Your task to perform on an android device: Search for seafood restaurants on Google Maps Image 0: 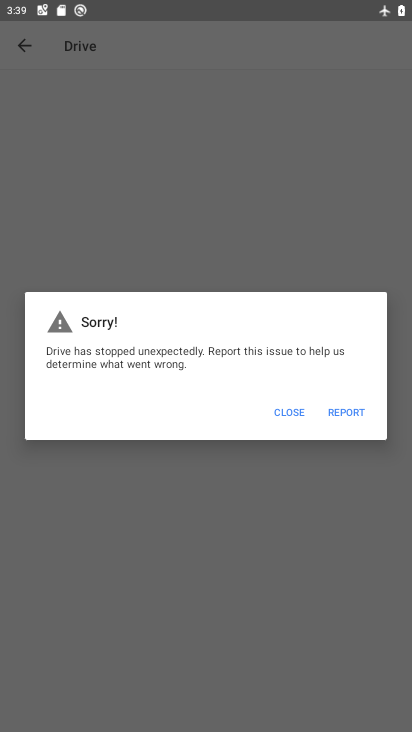
Step 0: press home button
Your task to perform on an android device: Search for seafood restaurants on Google Maps Image 1: 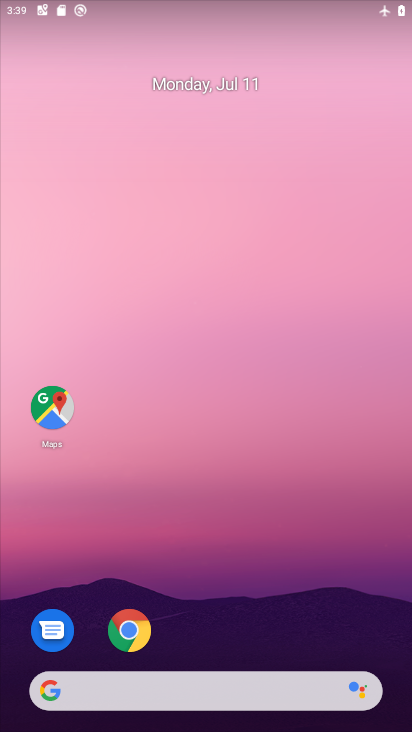
Step 1: click (67, 436)
Your task to perform on an android device: Search for seafood restaurants on Google Maps Image 2: 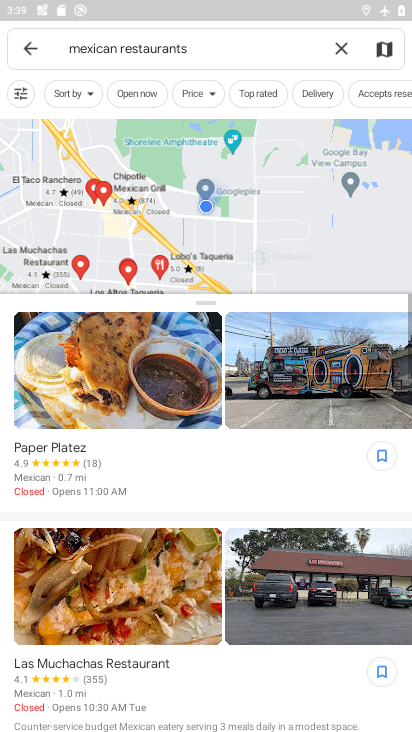
Step 2: click (216, 46)
Your task to perform on an android device: Search for seafood restaurants on Google Maps Image 3: 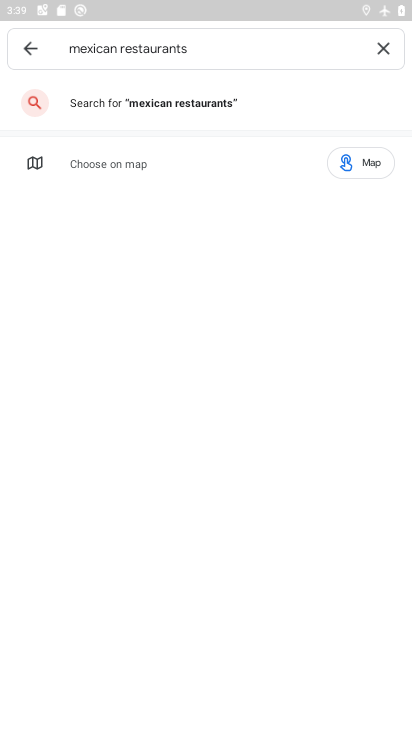
Step 3: click (334, 49)
Your task to perform on an android device: Search for seafood restaurants on Google Maps Image 4: 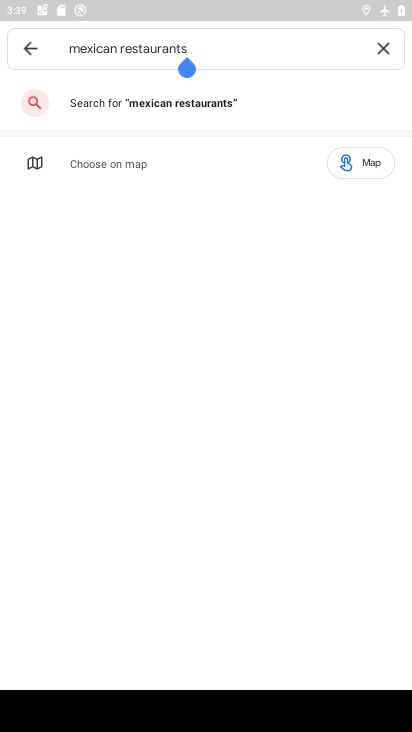
Step 4: click (375, 51)
Your task to perform on an android device: Search for seafood restaurants on Google Maps Image 5: 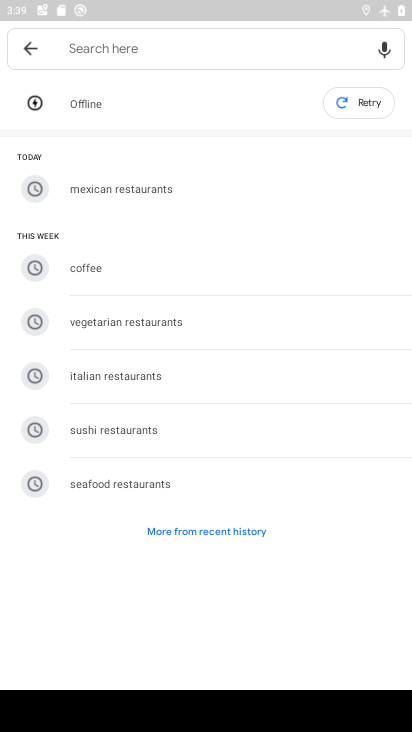
Step 5: click (179, 484)
Your task to perform on an android device: Search for seafood restaurants on Google Maps Image 6: 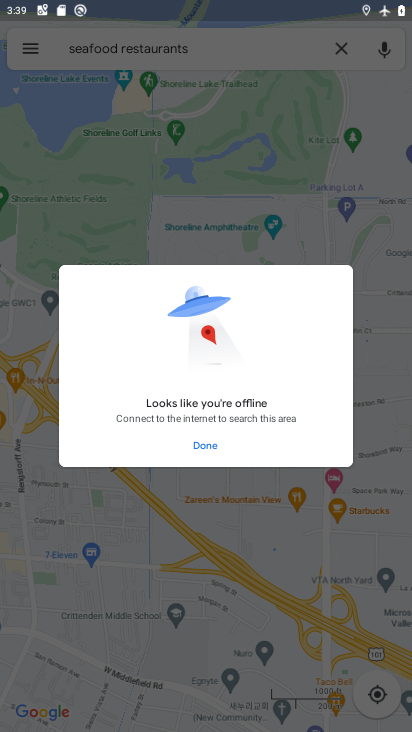
Step 6: task complete